Your task to perform on an android device: Go to Yahoo.com Image 0: 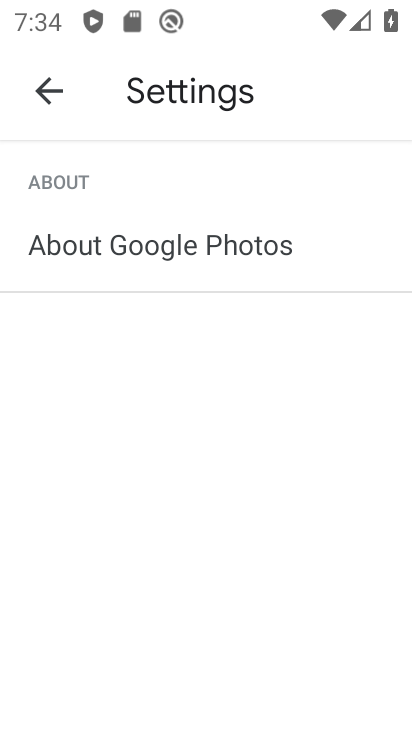
Step 0: press home button
Your task to perform on an android device: Go to Yahoo.com Image 1: 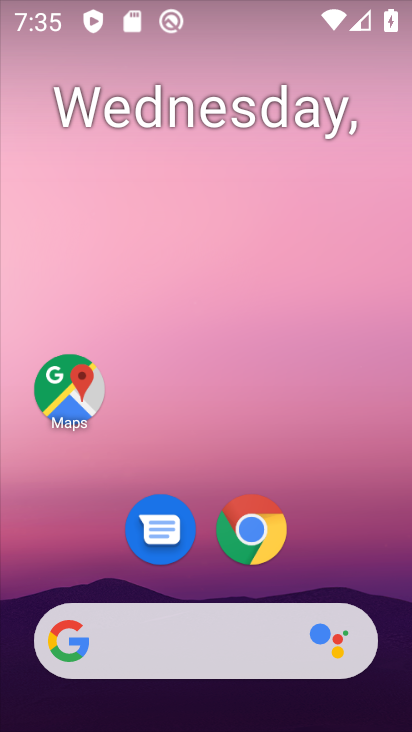
Step 1: click (260, 522)
Your task to perform on an android device: Go to Yahoo.com Image 2: 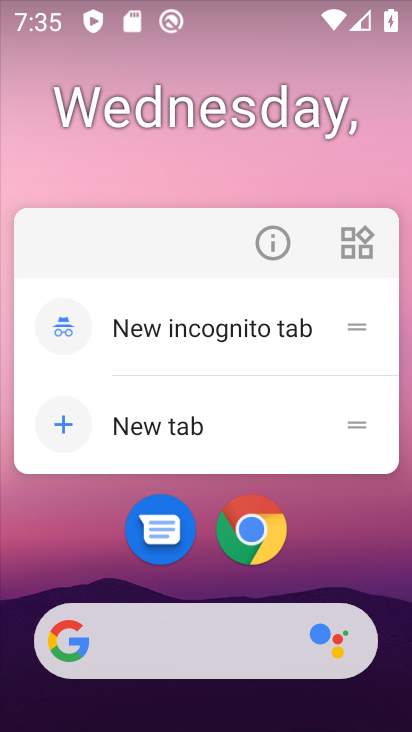
Step 2: click (261, 520)
Your task to perform on an android device: Go to Yahoo.com Image 3: 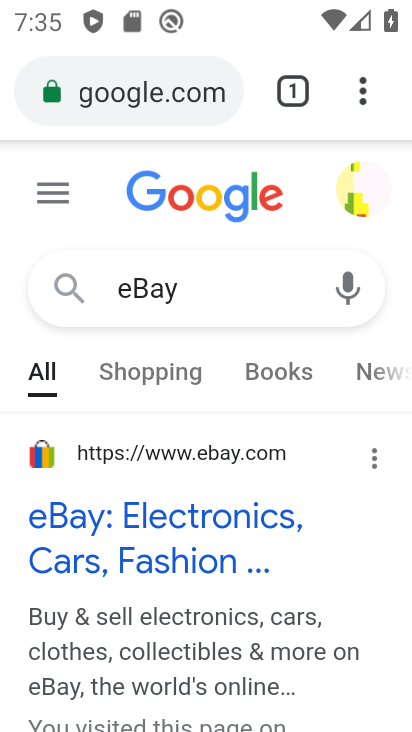
Step 3: click (192, 92)
Your task to perform on an android device: Go to Yahoo.com Image 4: 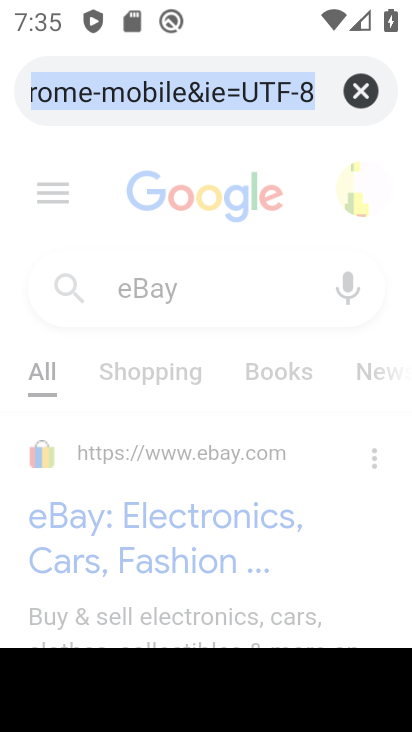
Step 4: type "Yahoo.com"
Your task to perform on an android device: Go to Yahoo.com Image 5: 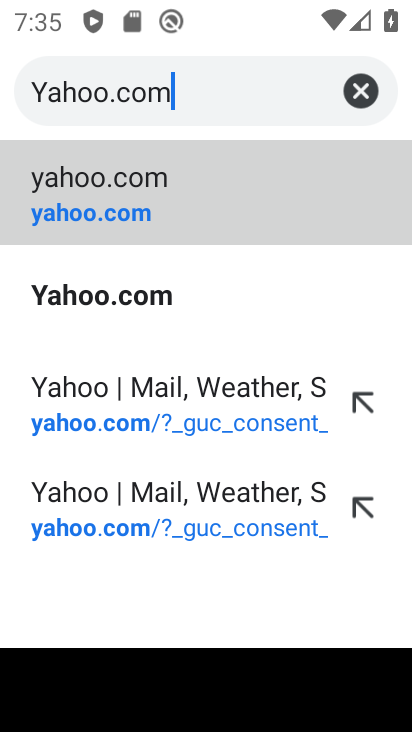
Step 5: click (231, 187)
Your task to perform on an android device: Go to Yahoo.com Image 6: 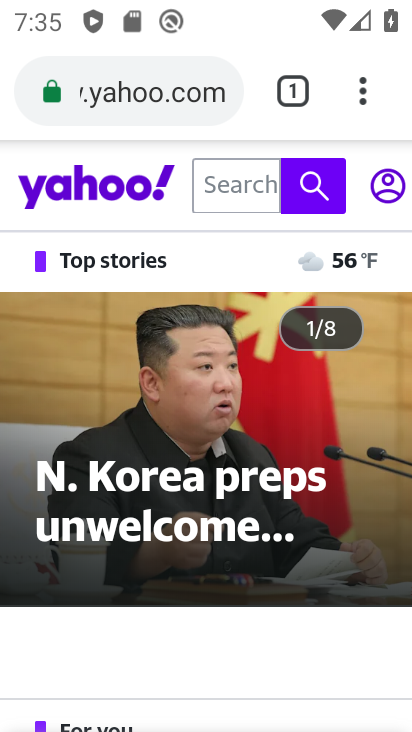
Step 6: task complete